Your task to perform on an android device: install app "Google Drive" Image 0: 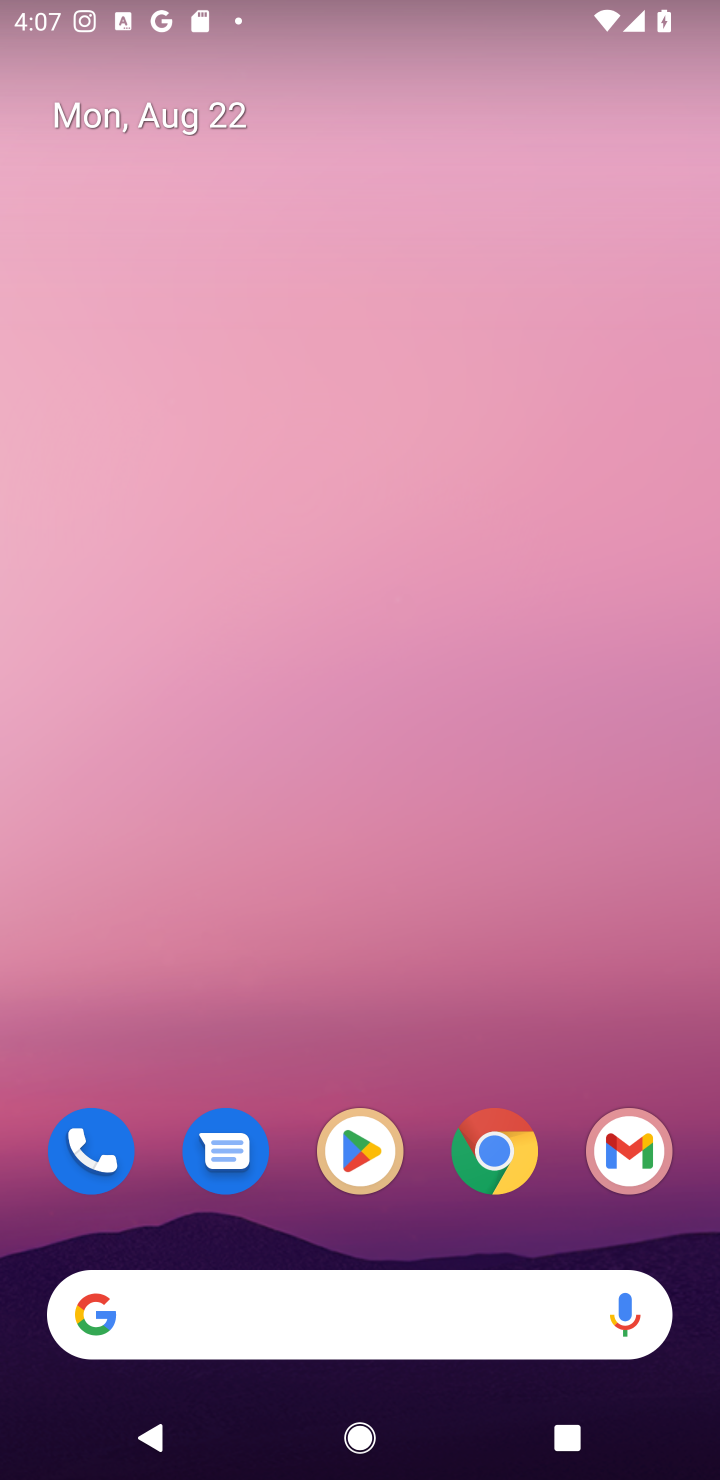
Step 0: click (356, 1154)
Your task to perform on an android device: install app "Google Drive" Image 1: 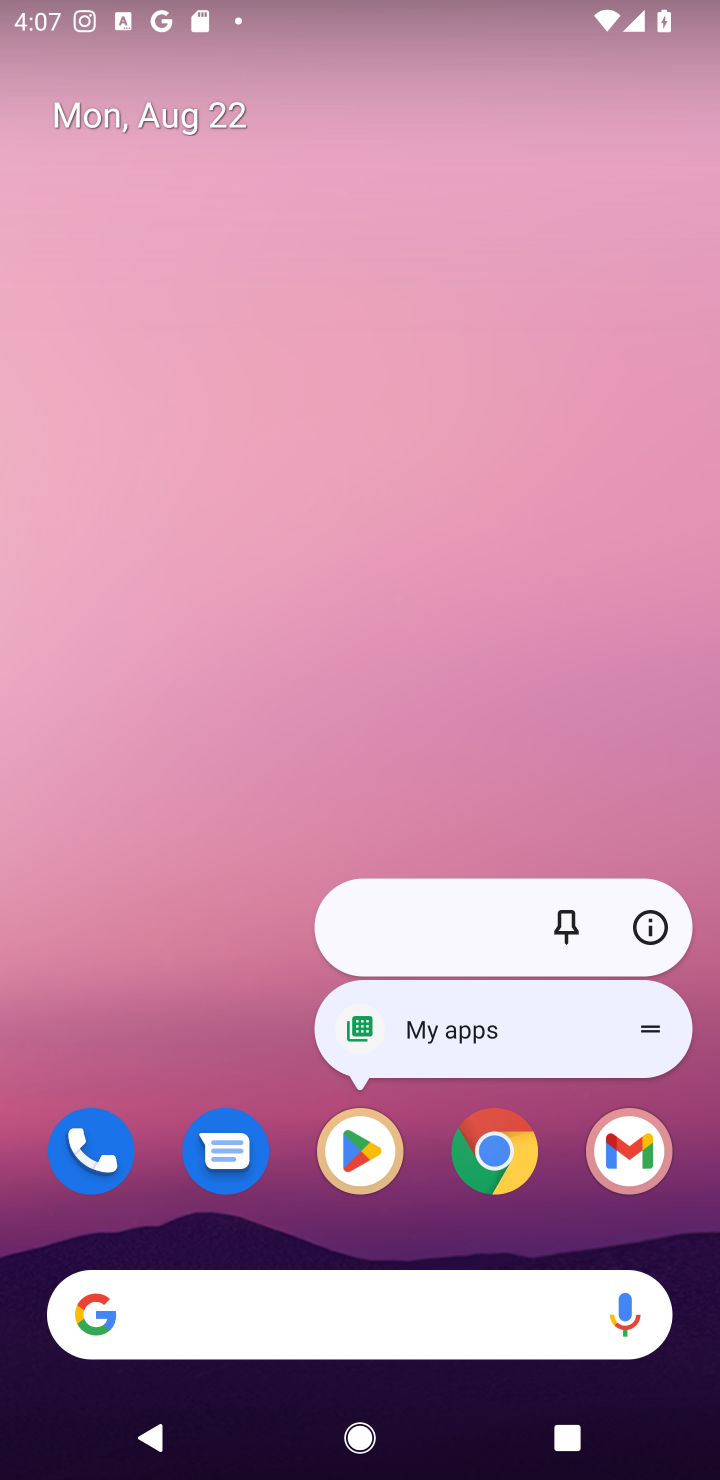
Step 1: click (356, 1152)
Your task to perform on an android device: install app "Google Drive" Image 2: 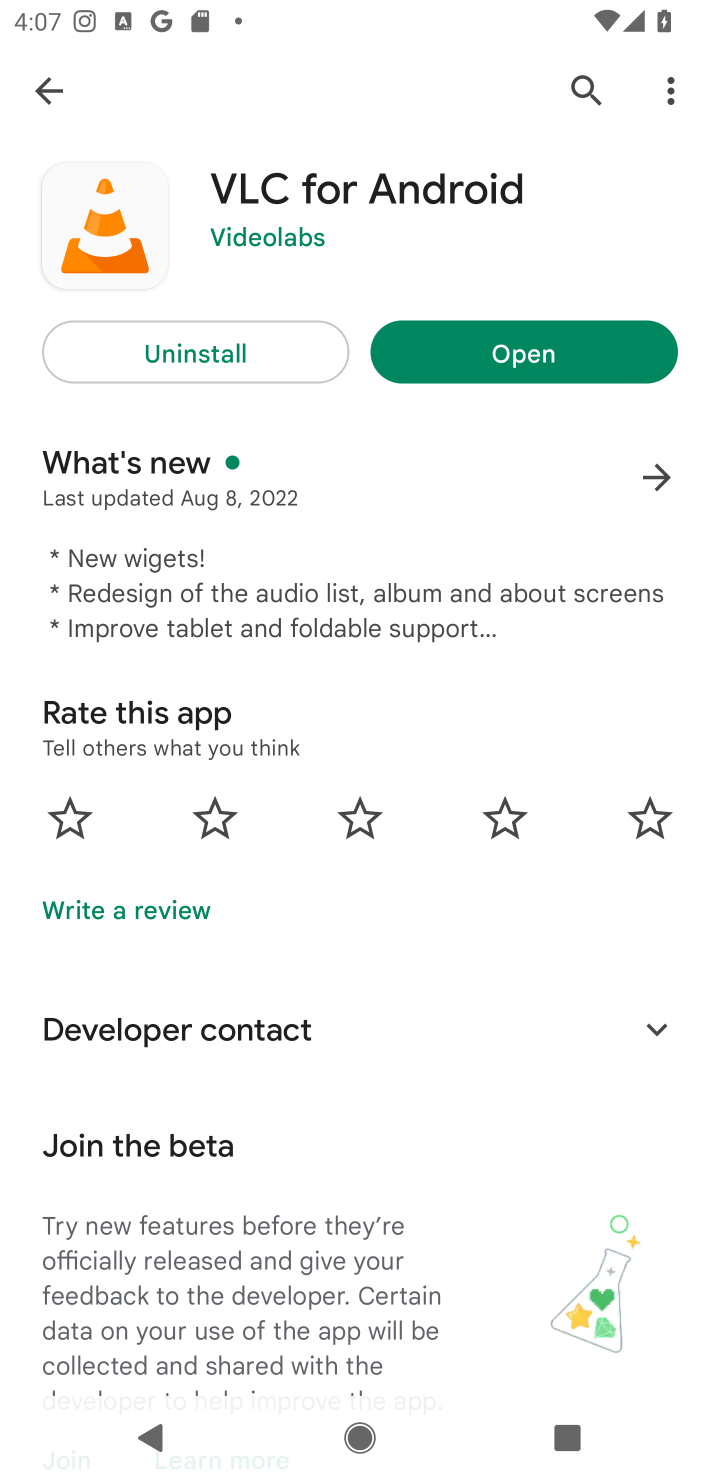
Step 2: click (580, 77)
Your task to perform on an android device: install app "Google Drive" Image 3: 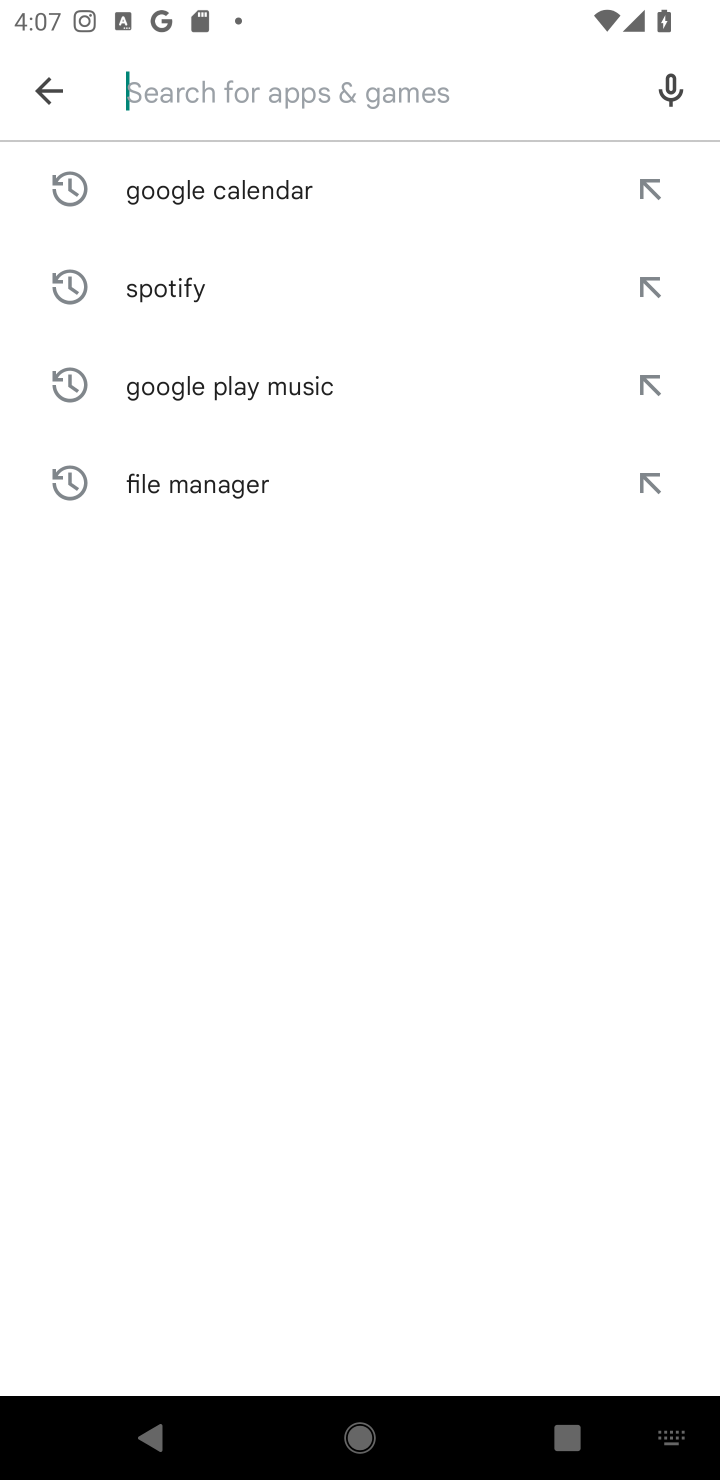
Step 3: type "Google Drive"
Your task to perform on an android device: install app "Google Drive" Image 4: 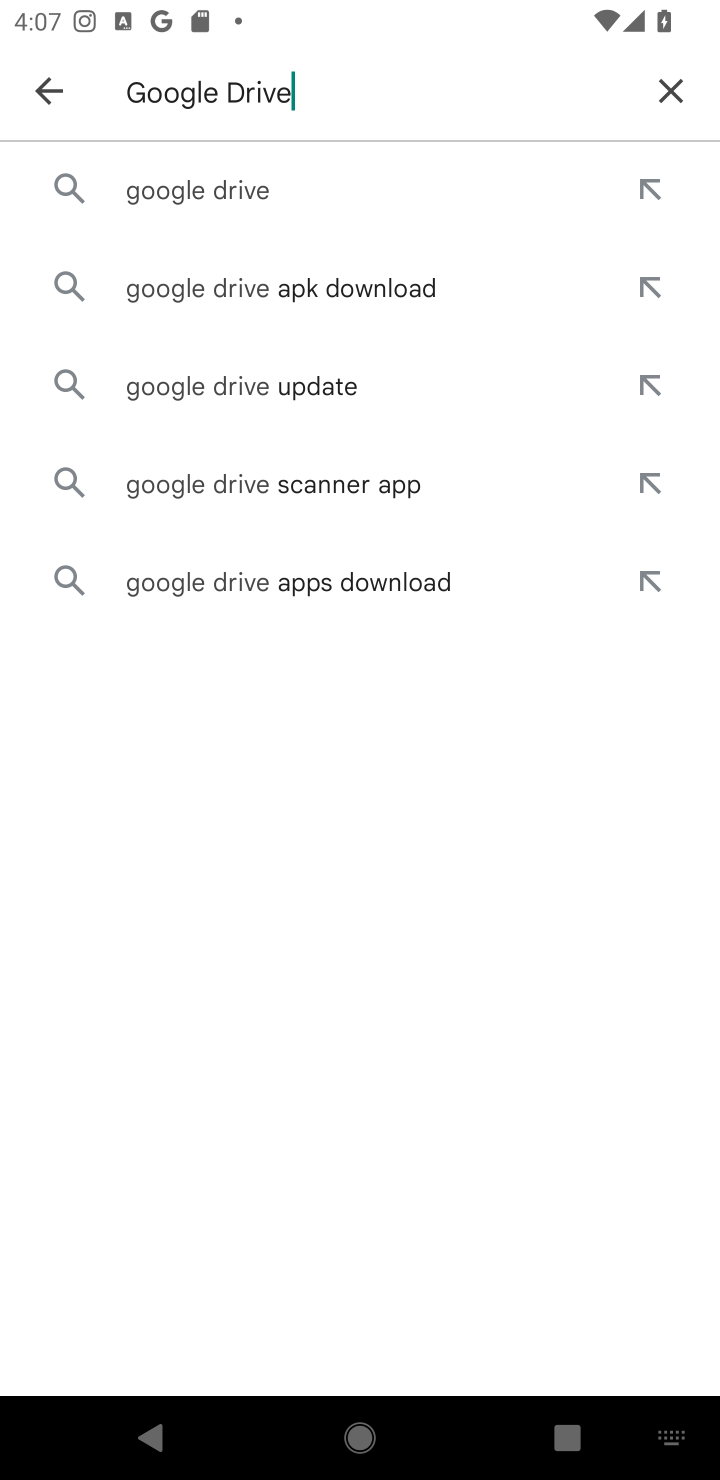
Step 4: click (165, 209)
Your task to perform on an android device: install app "Google Drive" Image 5: 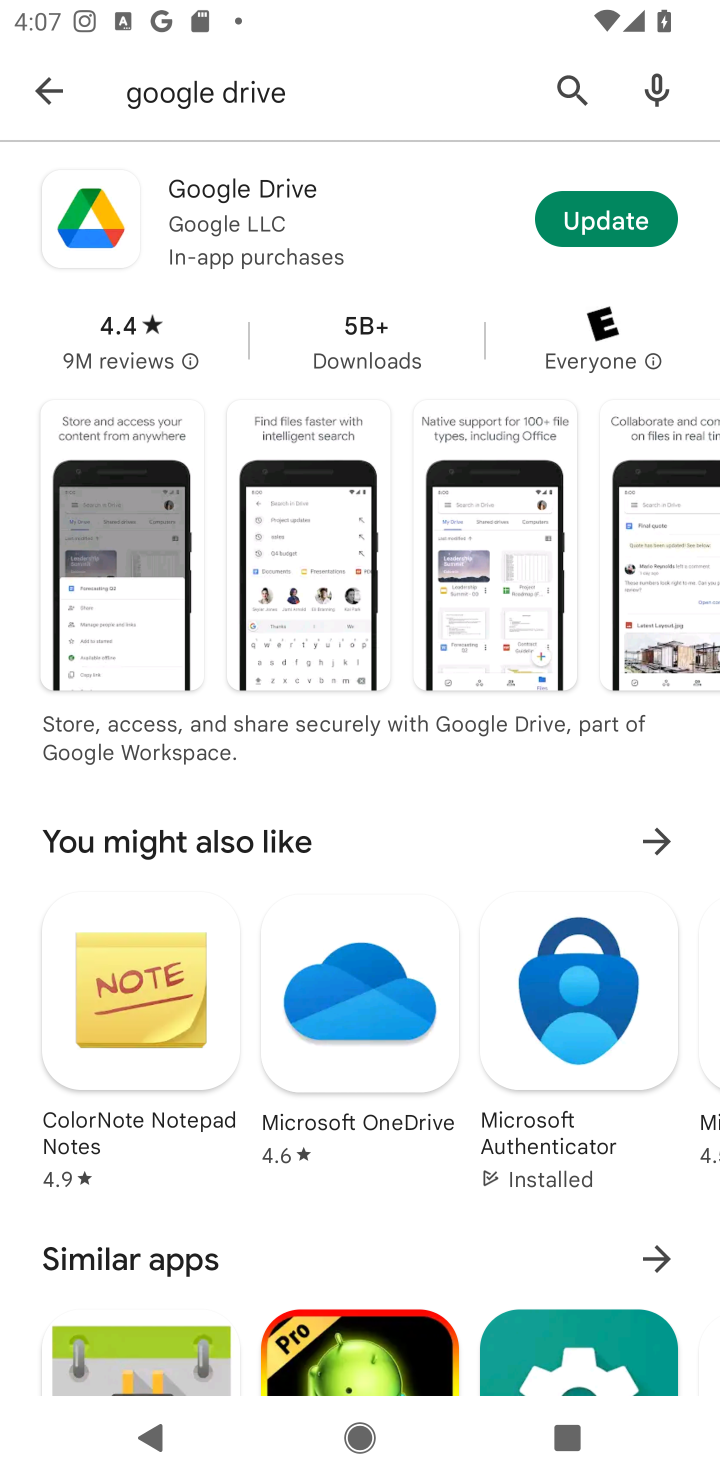
Step 5: click (191, 218)
Your task to perform on an android device: install app "Google Drive" Image 6: 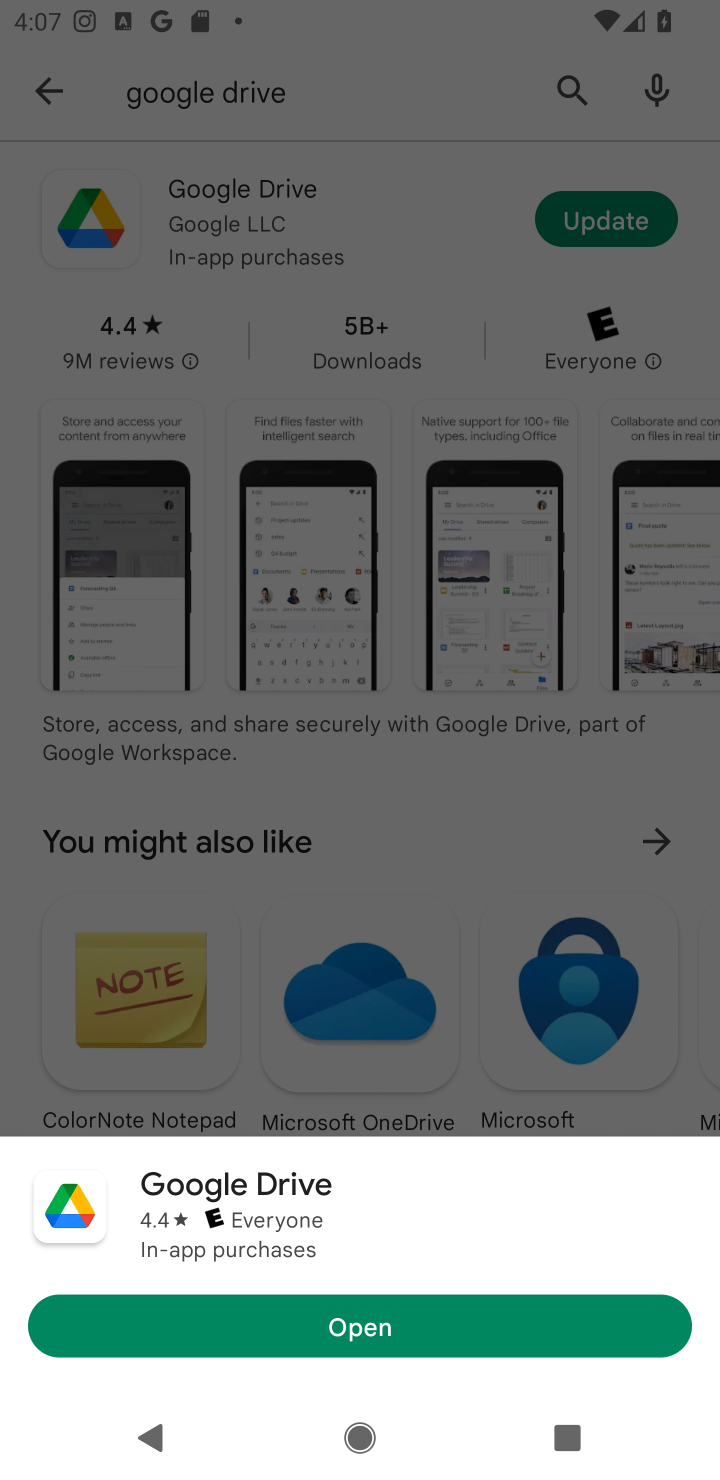
Step 6: task complete